Your task to perform on an android device: Open Youtube and go to the subscriptions tab Image 0: 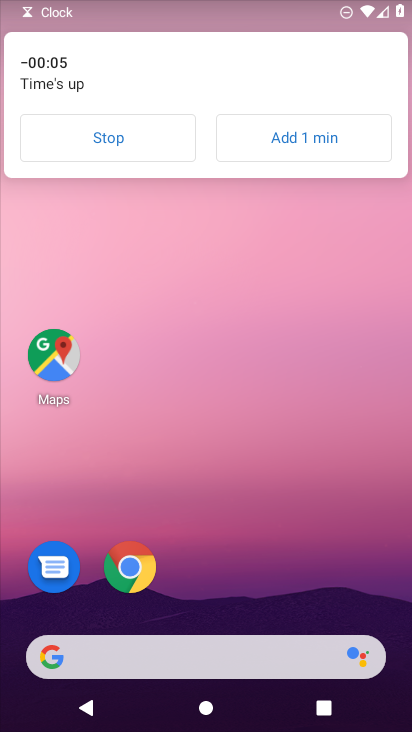
Step 0: drag from (306, 589) to (294, 141)
Your task to perform on an android device: Open Youtube and go to the subscriptions tab Image 1: 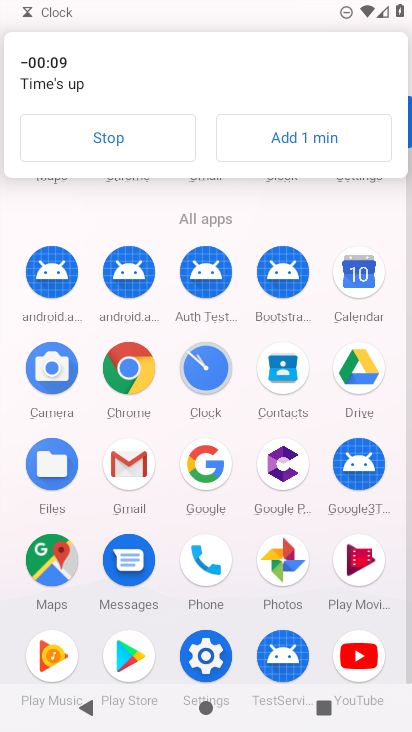
Step 1: click (357, 675)
Your task to perform on an android device: Open Youtube and go to the subscriptions tab Image 2: 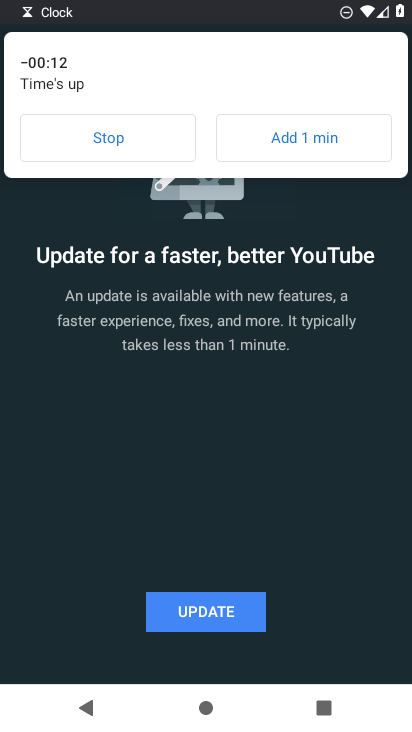
Step 2: click (107, 142)
Your task to perform on an android device: Open Youtube and go to the subscriptions tab Image 3: 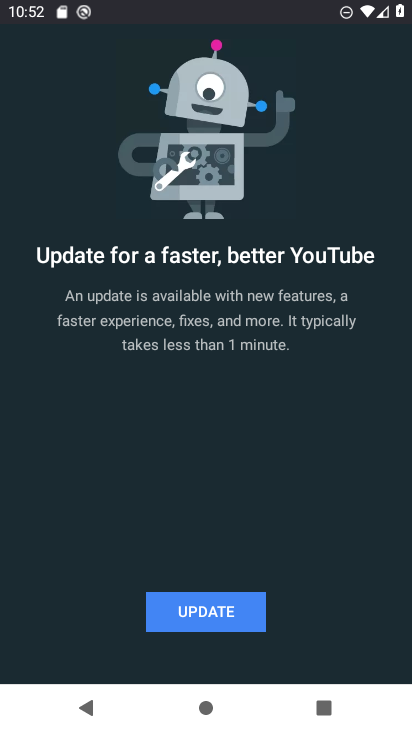
Step 3: click (236, 631)
Your task to perform on an android device: Open Youtube and go to the subscriptions tab Image 4: 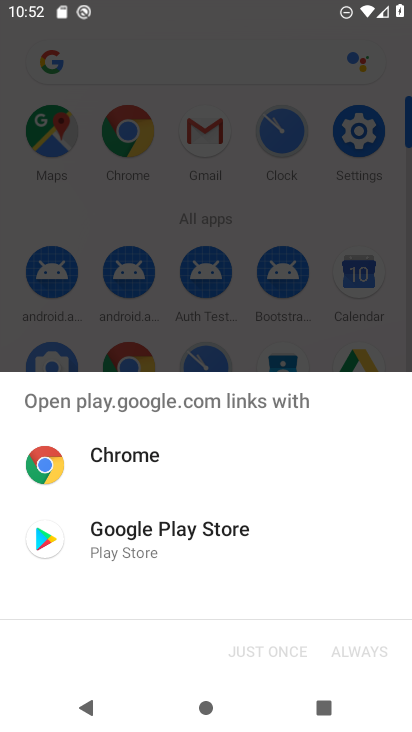
Step 4: click (224, 546)
Your task to perform on an android device: Open Youtube and go to the subscriptions tab Image 5: 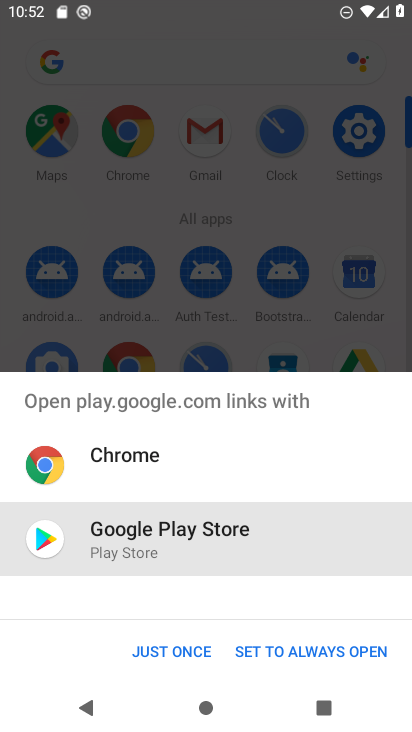
Step 5: click (141, 649)
Your task to perform on an android device: Open Youtube and go to the subscriptions tab Image 6: 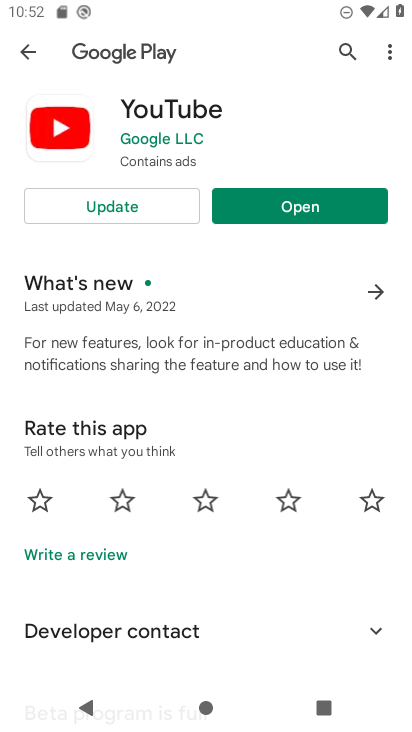
Step 6: click (137, 205)
Your task to perform on an android device: Open Youtube and go to the subscriptions tab Image 7: 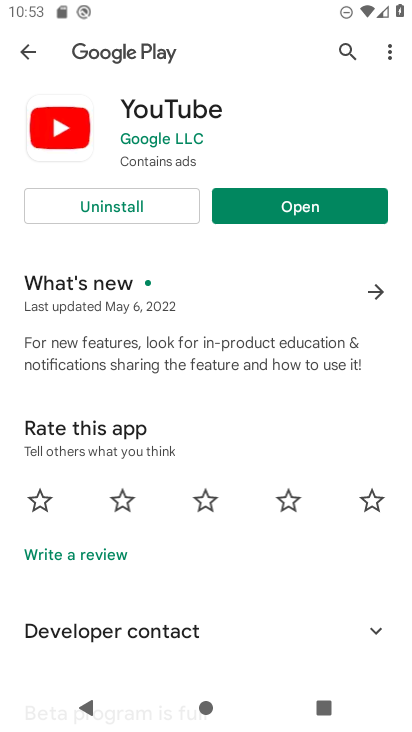
Step 7: click (352, 209)
Your task to perform on an android device: Open Youtube and go to the subscriptions tab Image 8: 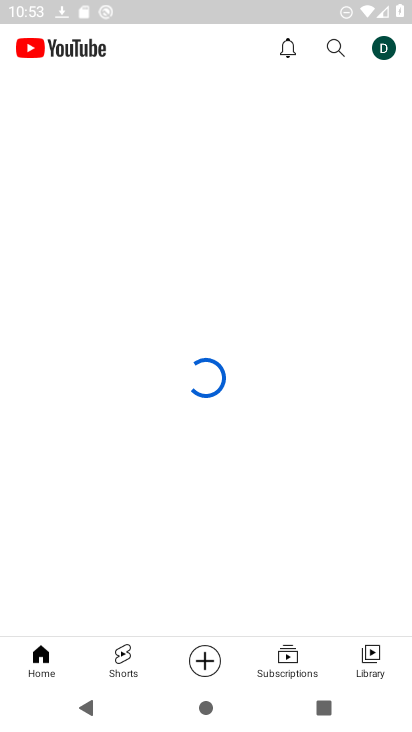
Step 8: click (294, 677)
Your task to perform on an android device: Open Youtube and go to the subscriptions tab Image 9: 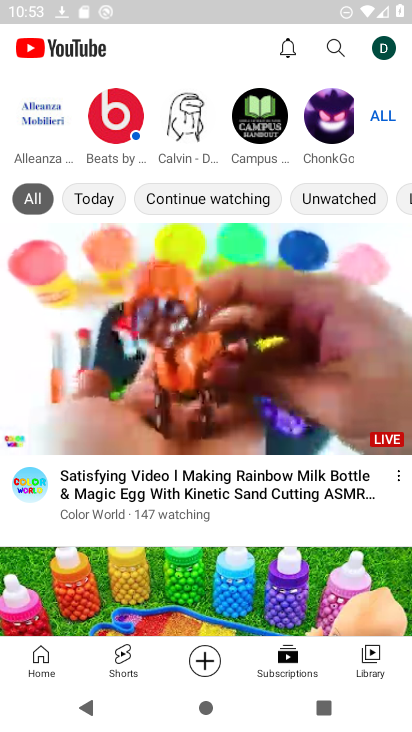
Step 9: task complete